Your task to perform on an android device: Open Youtube and go to the subscriptions tab Image 0: 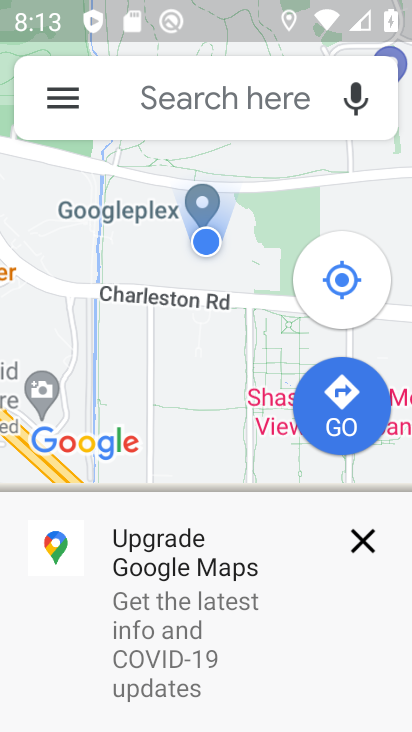
Step 0: drag from (362, 565) to (357, 240)
Your task to perform on an android device: Open Youtube and go to the subscriptions tab Image 1: 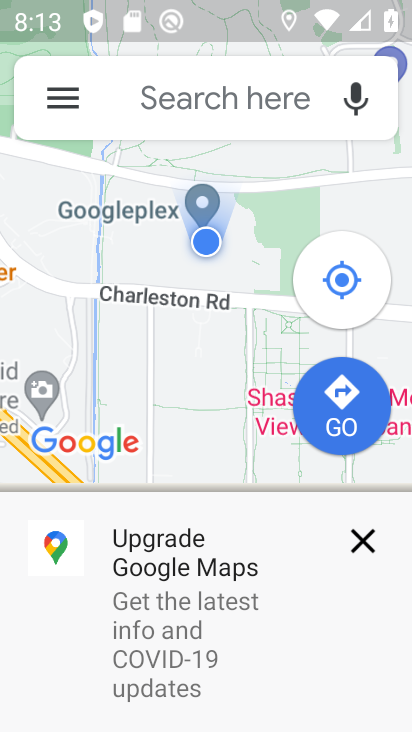
Step 1: press home button
Your task to perform on an android device: Open Youtube and go to the subscriptions tab Image 2: 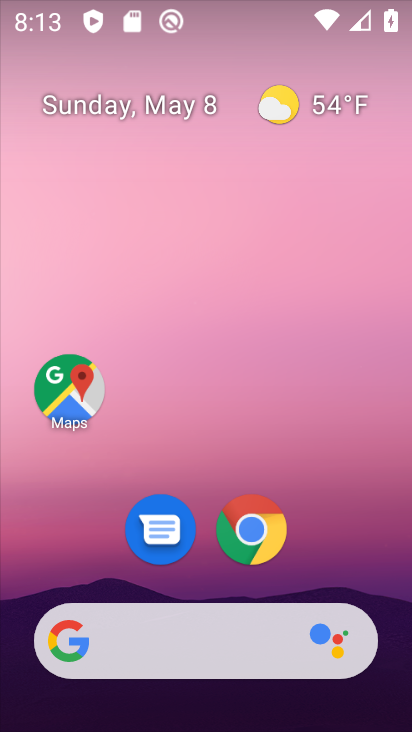
Step 2: drag from (361, 554) to (362, 41)
Your task to perform on an android device: Open Youtube and go to the subscriptions tab Image 3: 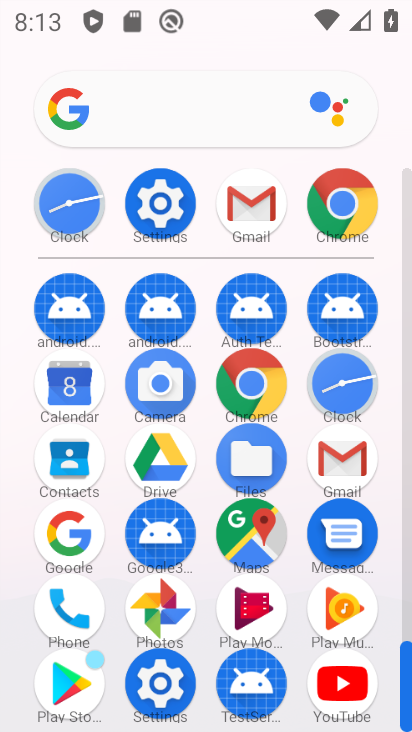
Step 3: click (342, 698)
Your task to perform on an android device: Open Youtube and go to the subscriptions tab Image 4: 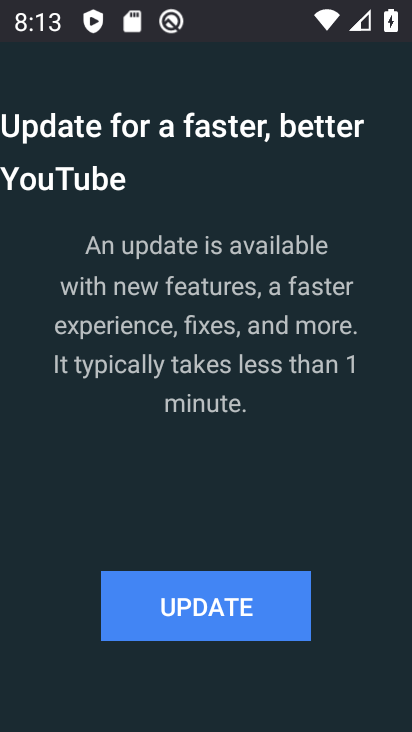
Step 4: click (210, 620)
Your task to perform on an android device: Open Youtube and go to the subscriptions tab Image 5: 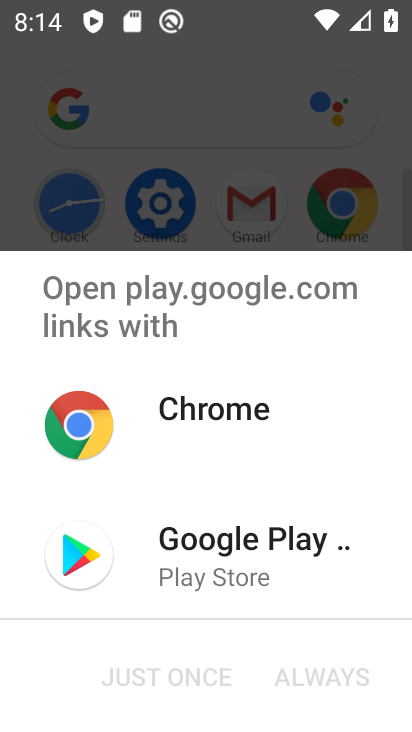
Step 5: click (201, 547)
Your task to perform on an android device: Open Youtube and go to the subscriptions tab Image 6: 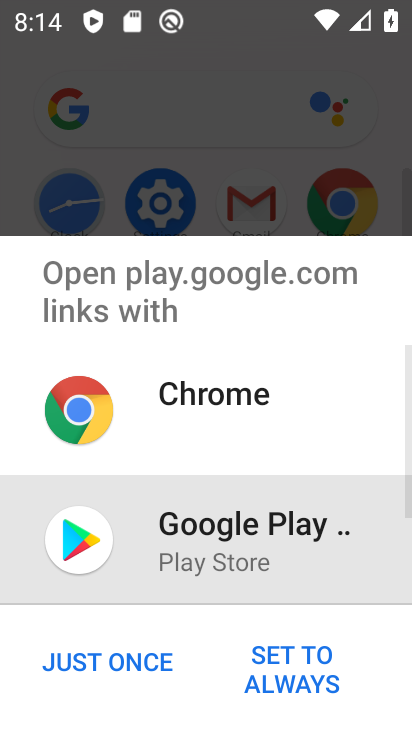
Step 6: click (130, 670)
Your task to perform on an android device: Open Youtube and go to the subscriptions tab Image 7: 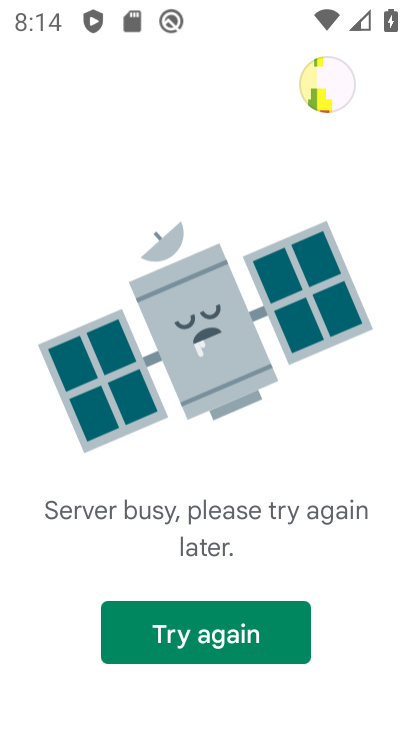
Step 7: click (155, 640)
Your task to perform on an android device: Open Youtube and go to the subscriptions tab Image 8: 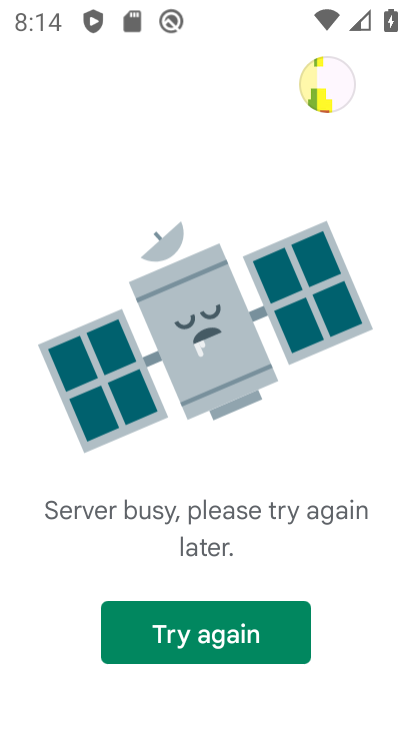
Step 8: task complete